Your task to perform on an android device: uninstall "Google Keep" Image 0: 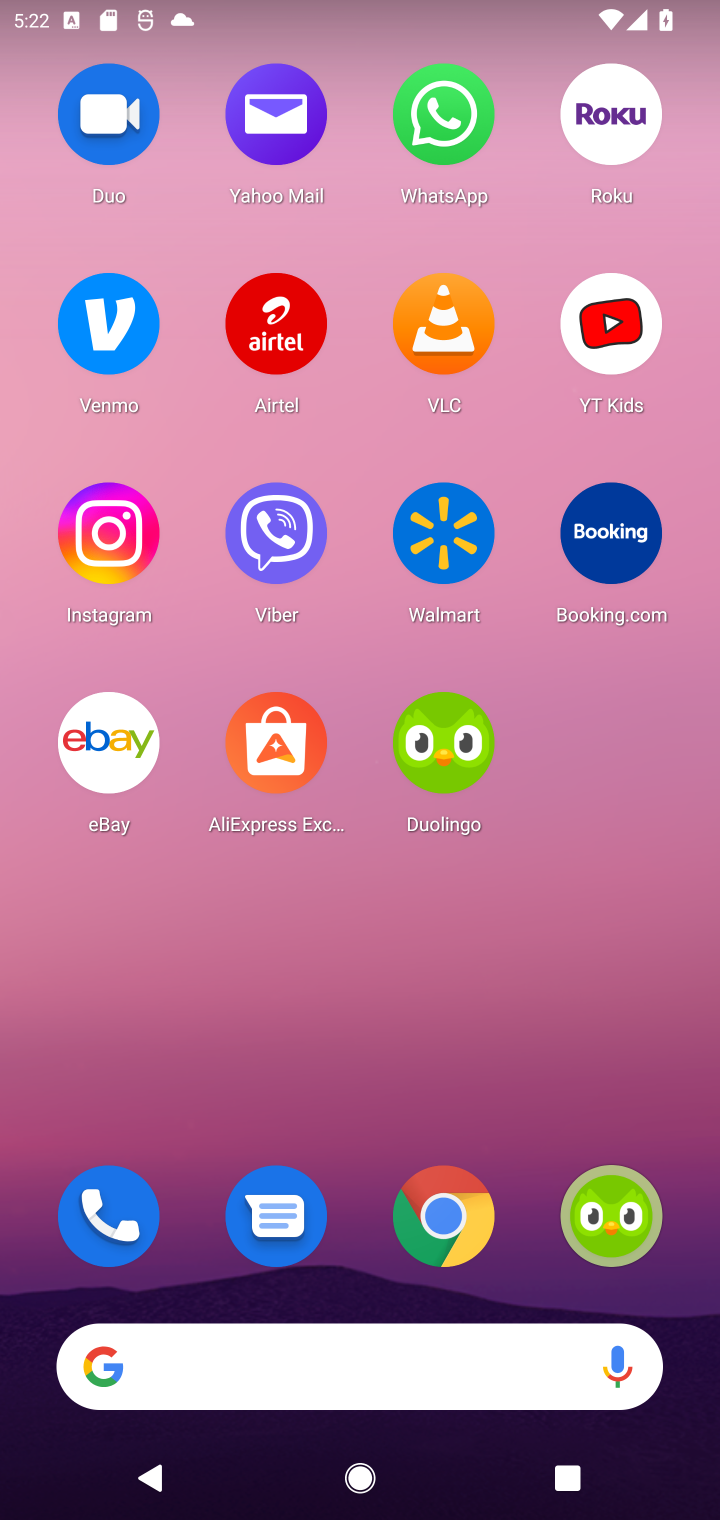
Step 0: drag from (426, 999) to (522, 181)
Your task to perform on an android device: uninstall "Google Keep" Image 1: 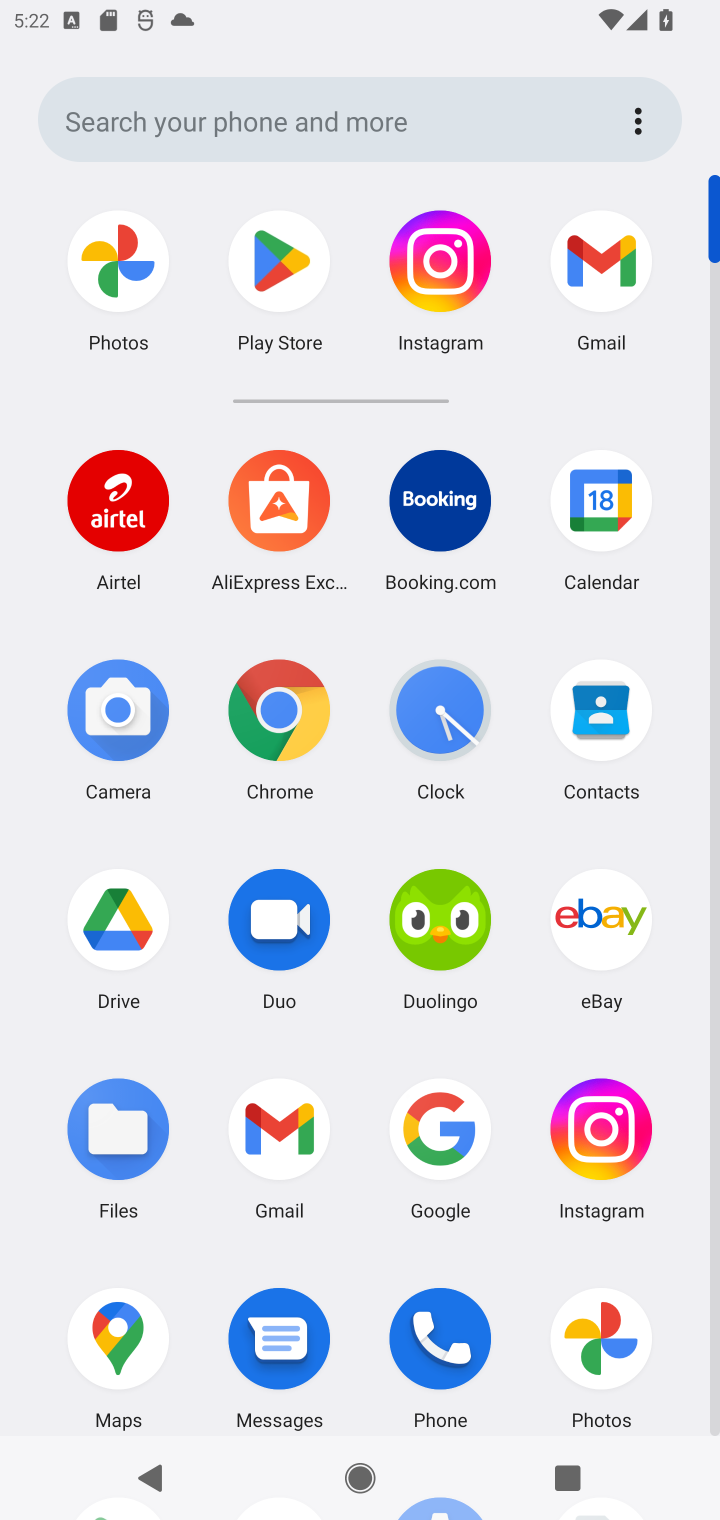
Step 1: click (310, 244)
Your task to perform on an android device: uninstall "Google Keep" Image 2: 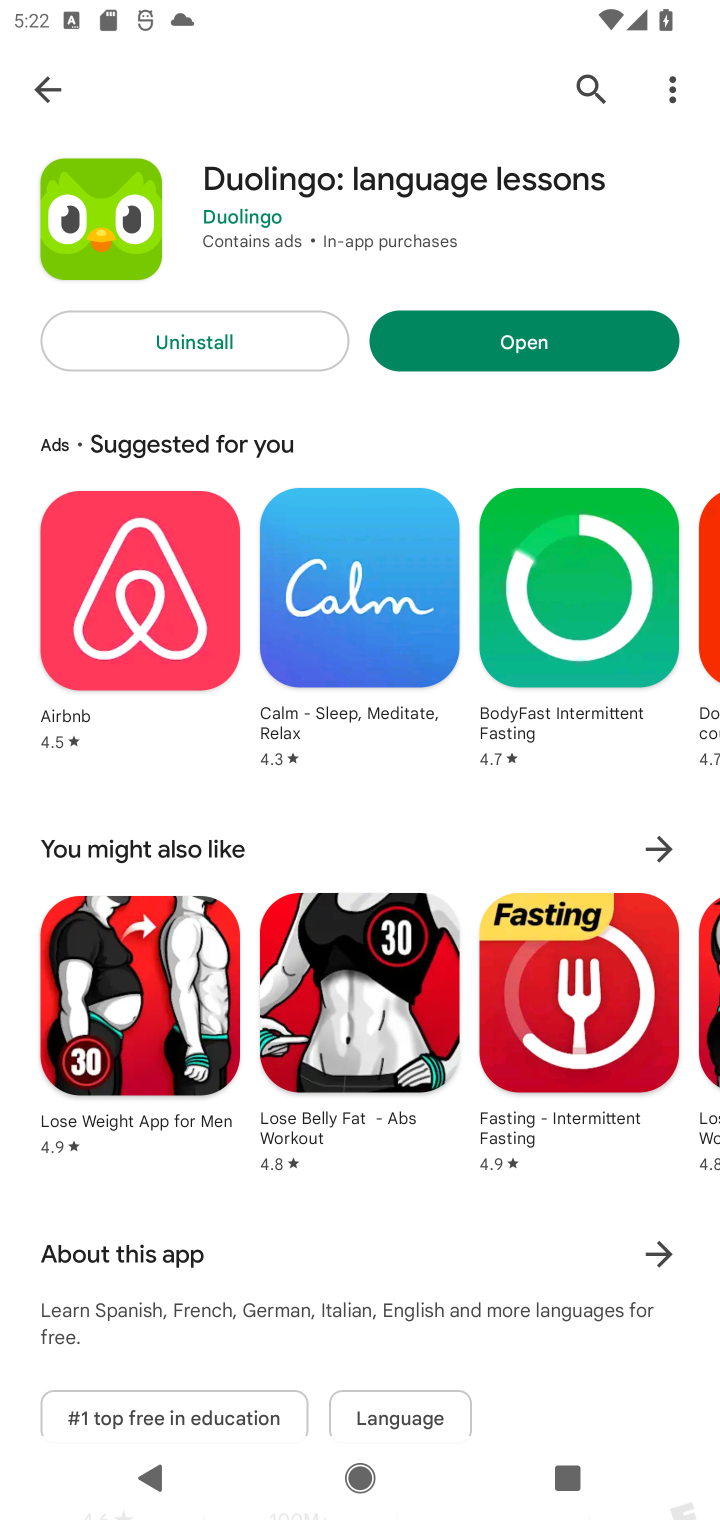
Step 2: click (579, 83)
Your task to perform on an android device: uninstall "Google Keep" Image 3: 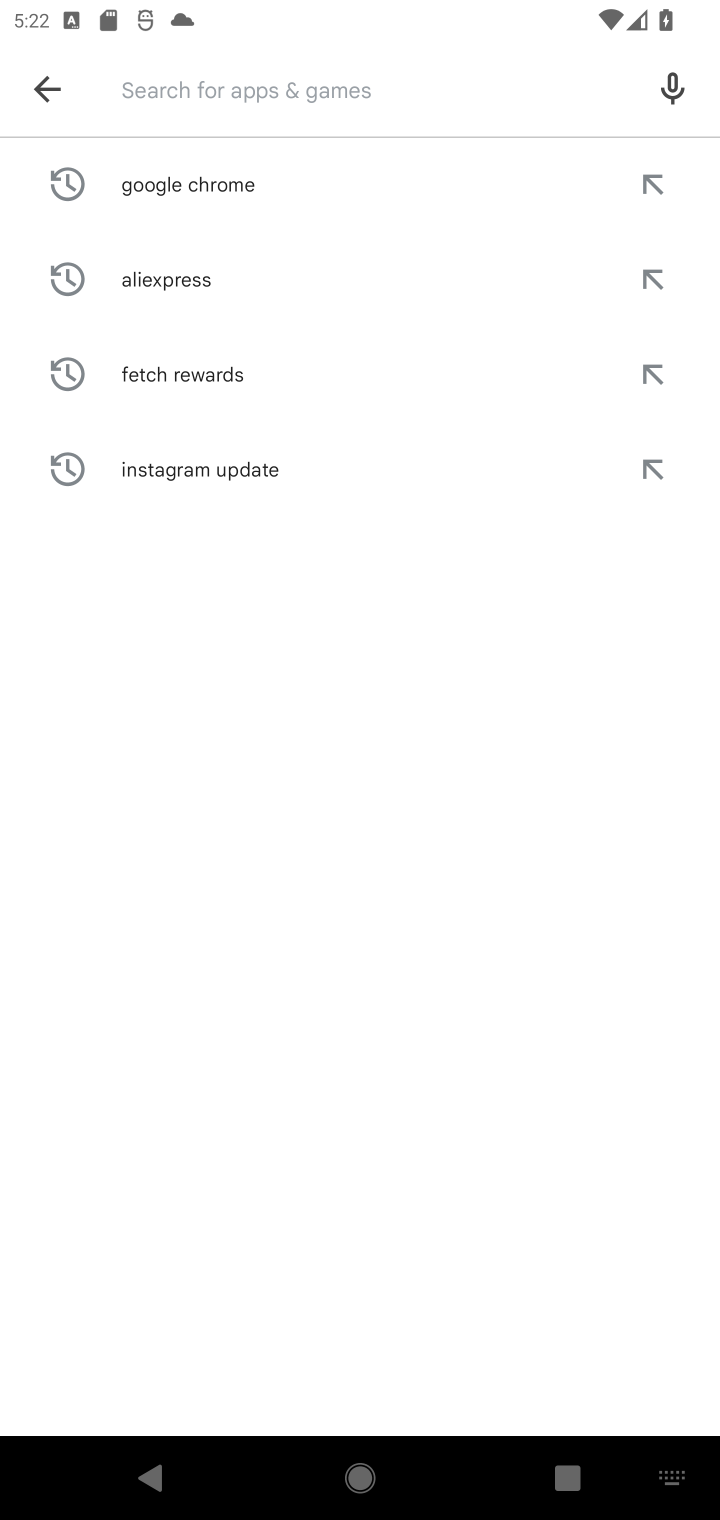
Step 3: type "Google Keep"
Your task to perform on an android device: uninstall "Google Keep" Image 4: 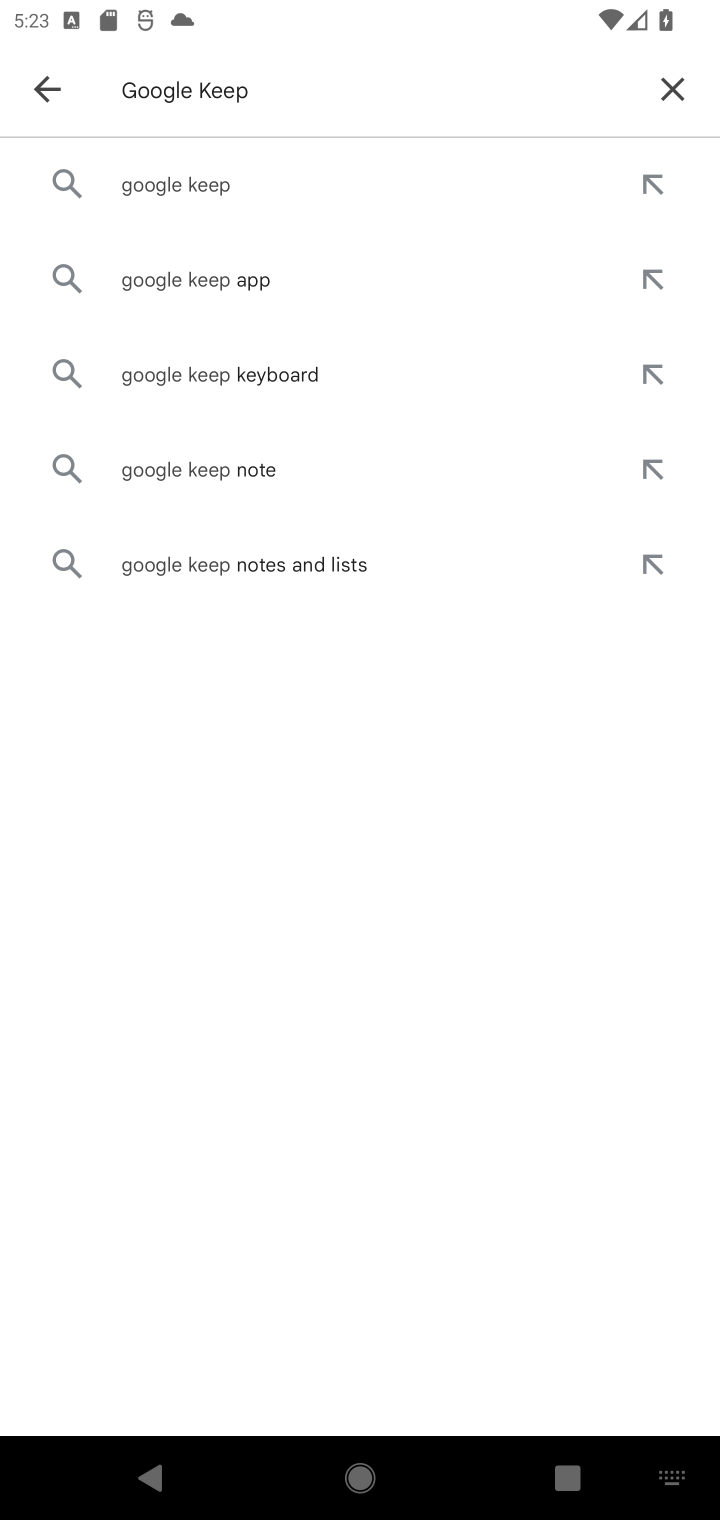
Step 4: press home button
Your task to perform on an android device: uninstall "Google Keep" Image 5: 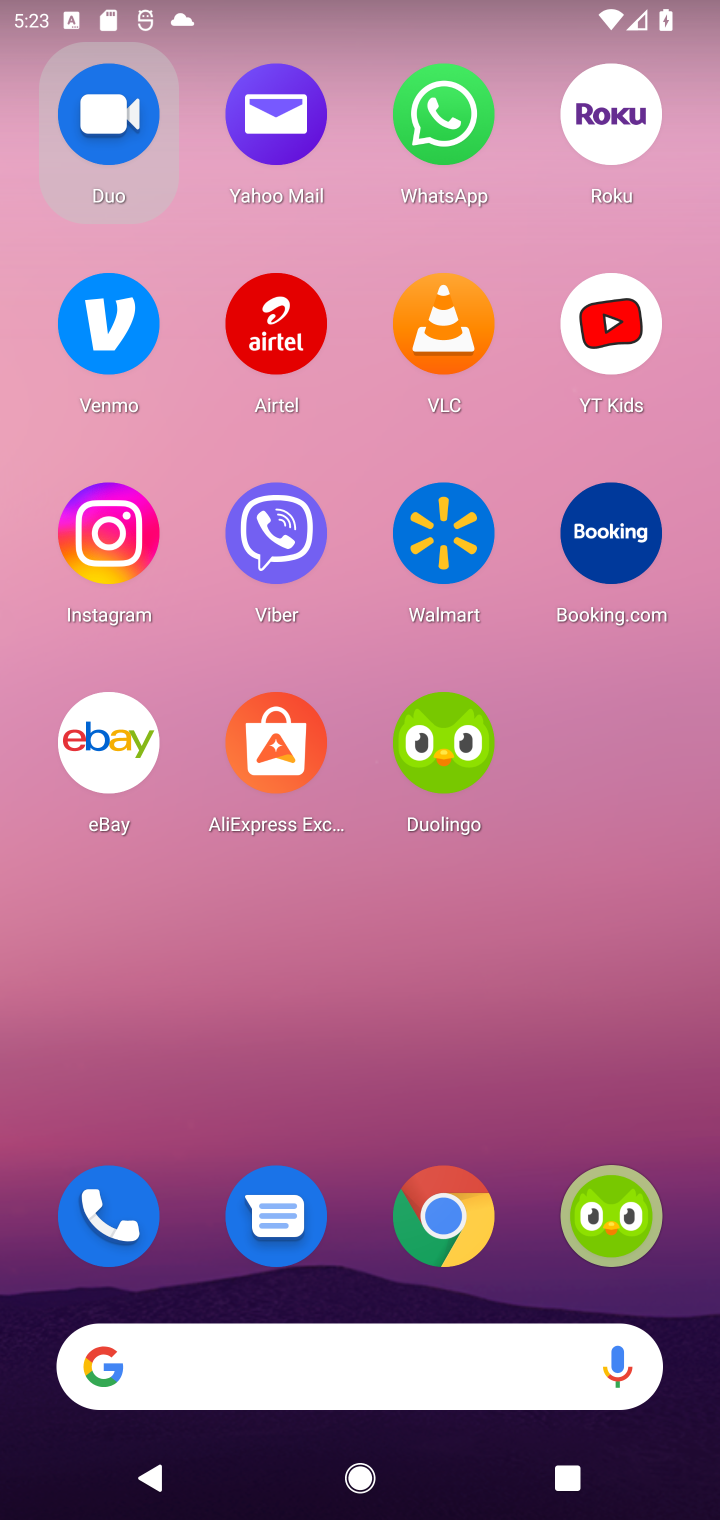
Step 5: drag from (388, 1020) to (458, 132)
Your task to perform on an android device: uninstall "Google Keep" Image 6: 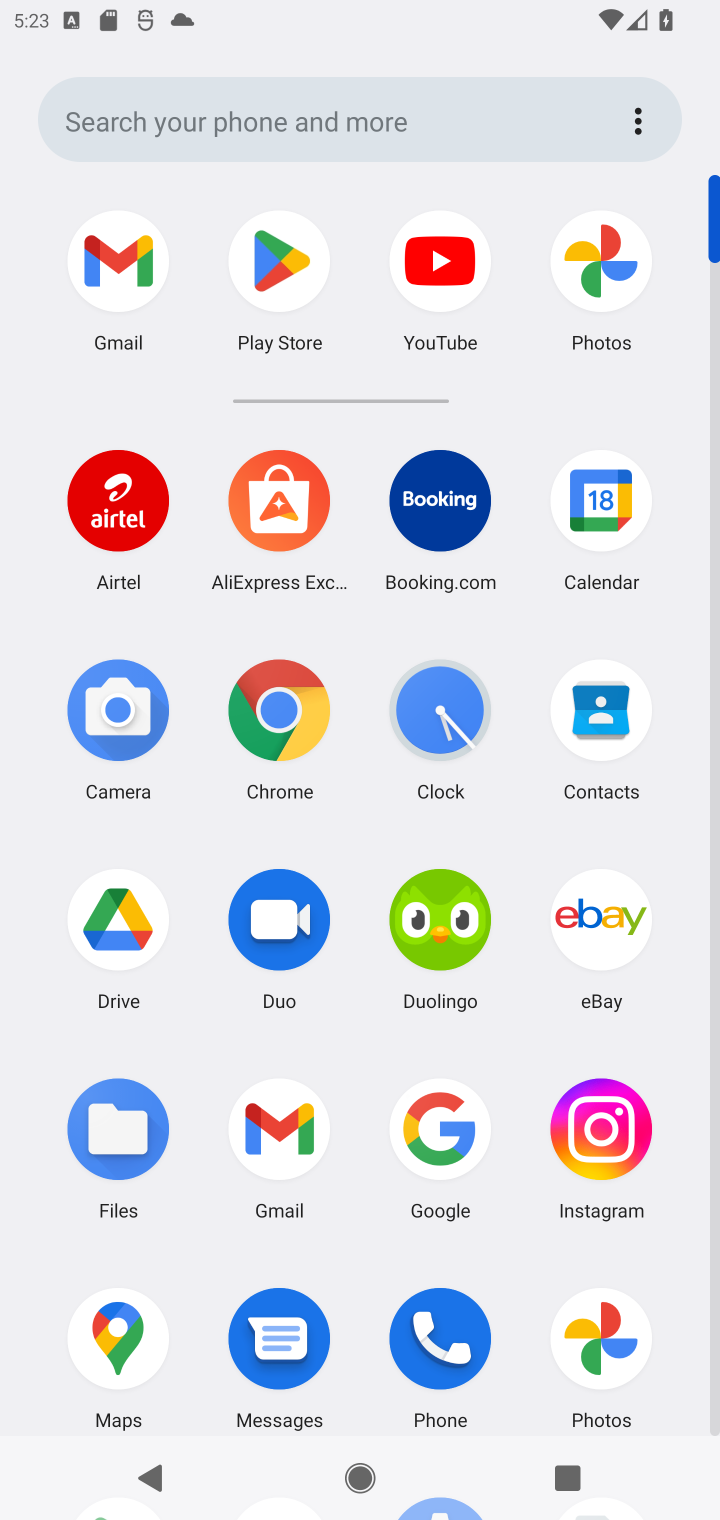
Step 6: click (281, 269)
Your task to perform on an android device: uninstall "Google Keep" Image 7: 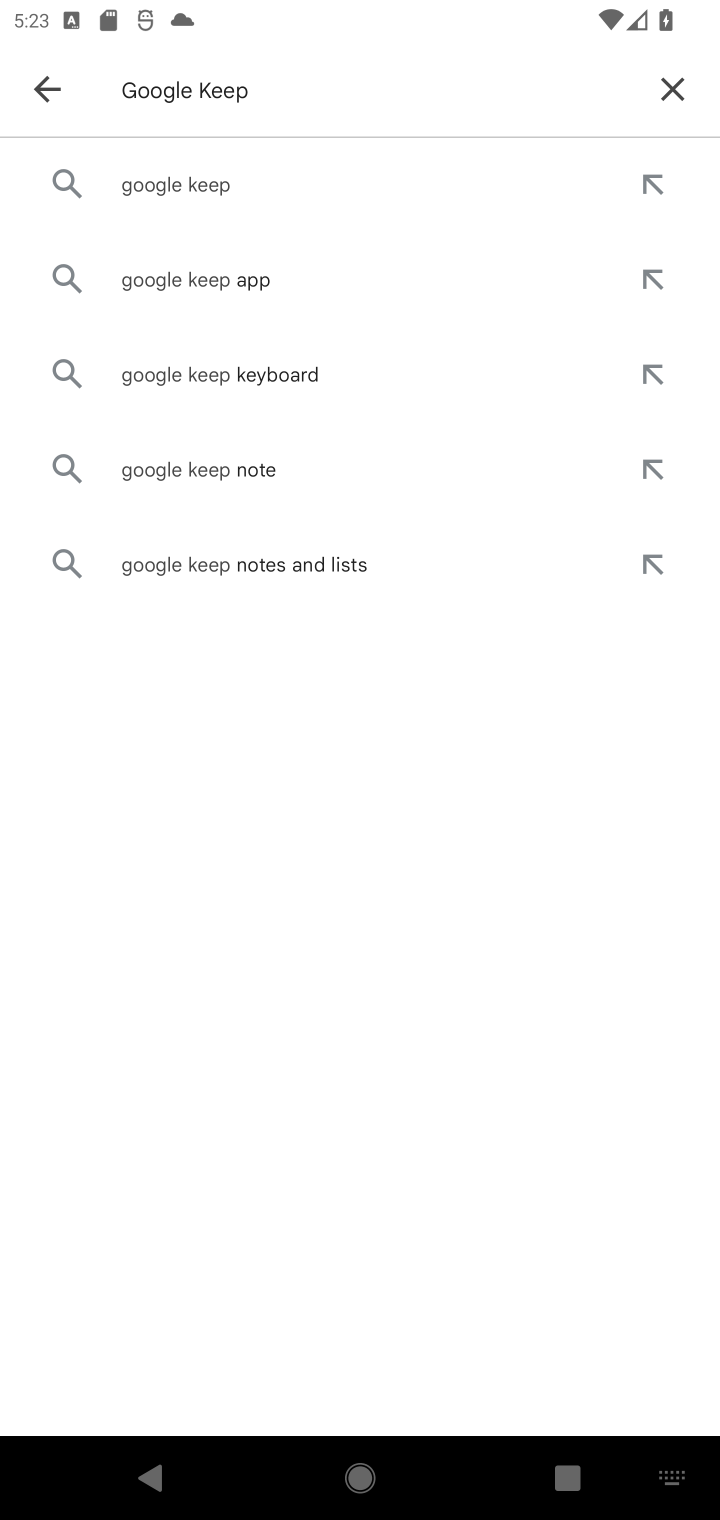
Step 7: click (265, 192)
Your task to perform on an android device: uninstall "Google Keep" Image 8: 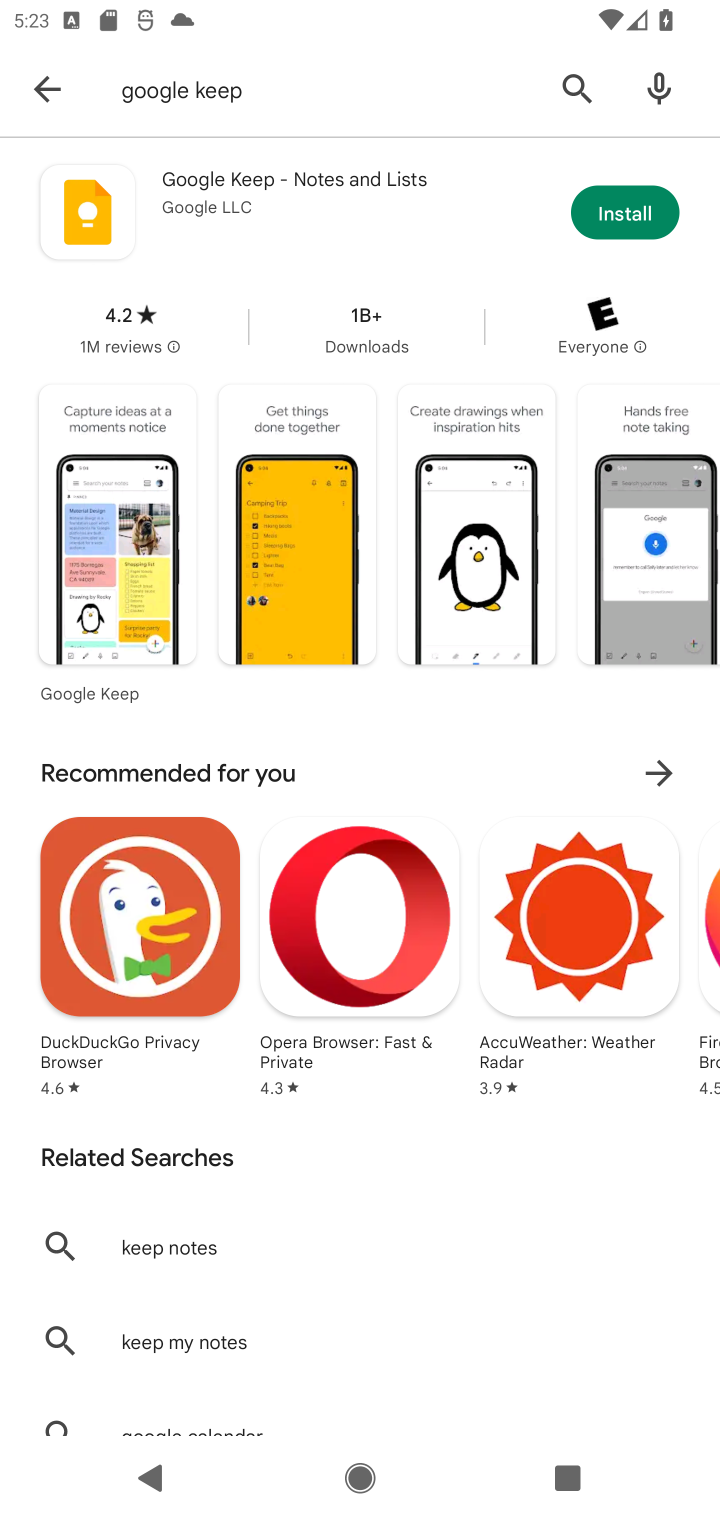
Step 8: task complete